Your task to perform on an android device: check the backup settings in the google photos Image 0: 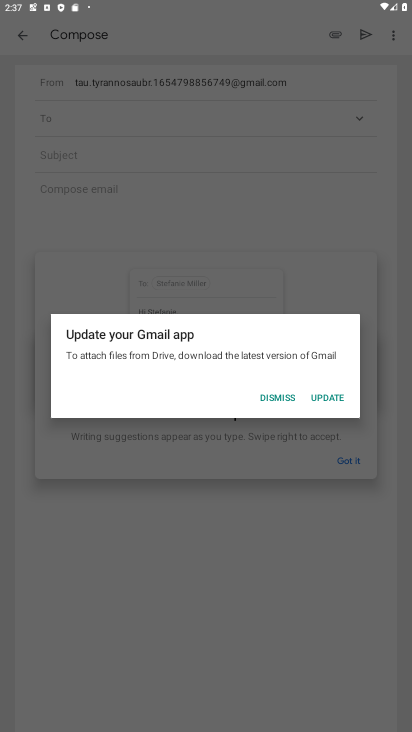
Step 0: press home button
Your task to perform on an android device: check the backup settings in the google photos Image 1: 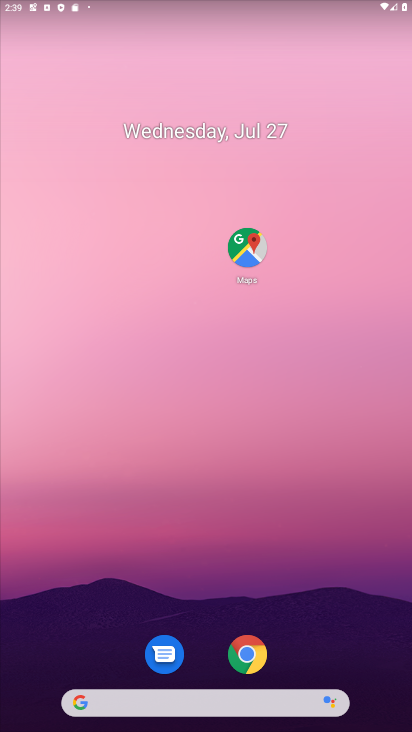
Step 1: drag from (112, 320) to (254, 75)
Your task to perform on an android device: check the backup settings in the google photos Image 2: 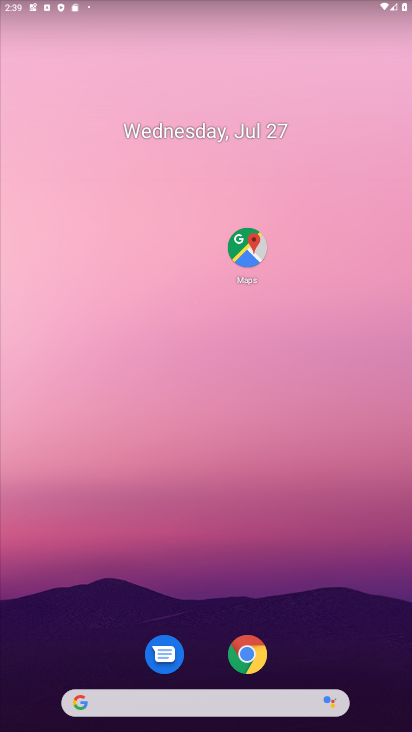
Step 2: drag from (46, 531) to (272, 73)
Your task to perform on an android device: check the backup settings in the google photos Image 3: 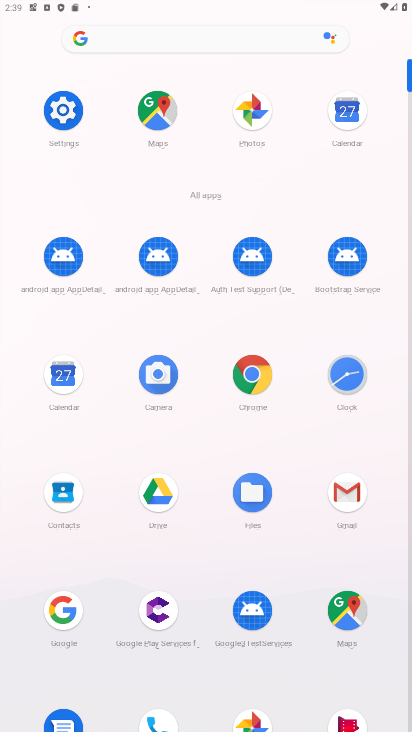
Step 3: click (245, 709)
Your task to perform on an android device: check the backup settings in the google photos Image 4: 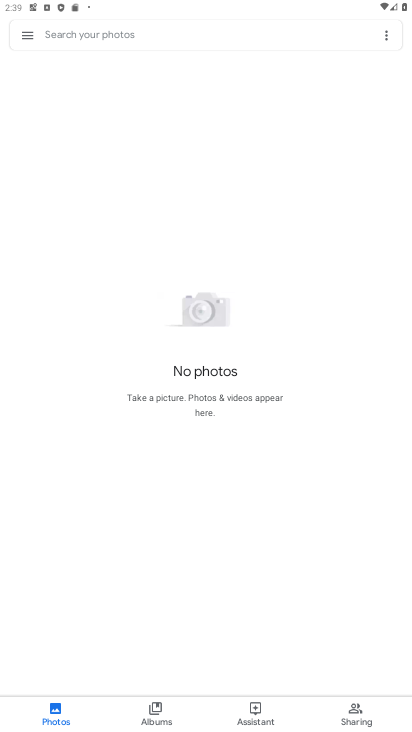
Step 4: click (21, 34)
Your task to perform on an android device: check the backup settings in the google photos Image 5: 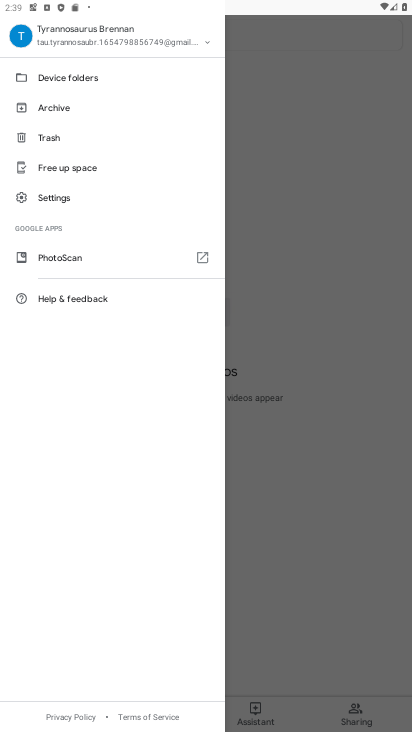
Step 5: click (36, 196)
Your task to perform on an android device: check the backup settings in the google photos Image 6: 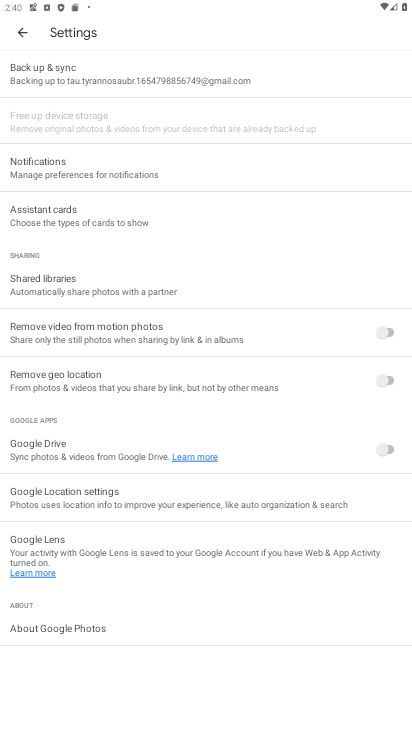
Step 6: click (82, 69)
Your task to perform on an android device: check the backup settings in the google photos Image 7: 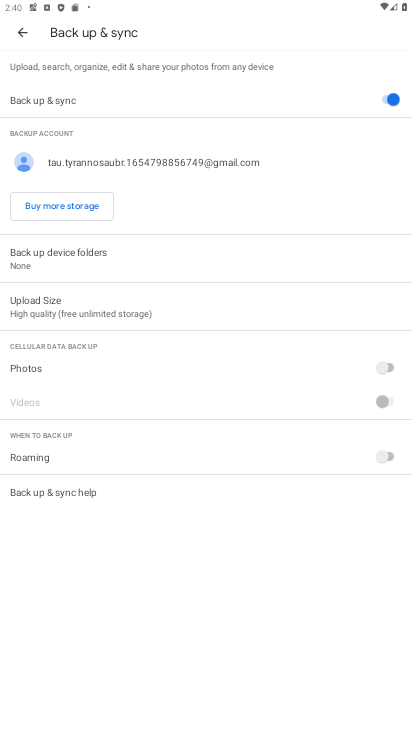
Step 7: task complete